Your task to perform on an android device: Open Reddit.com Image 0: 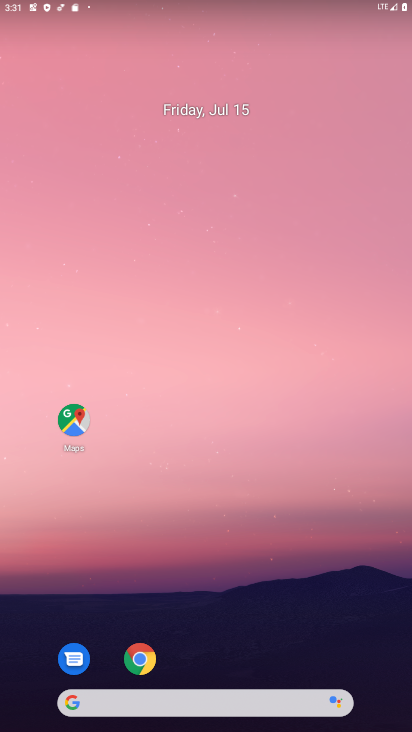
Step 0: drag from (155, 688) to (187, 424)
Your task to perform on an android device: Open Reddit.com Image 1: 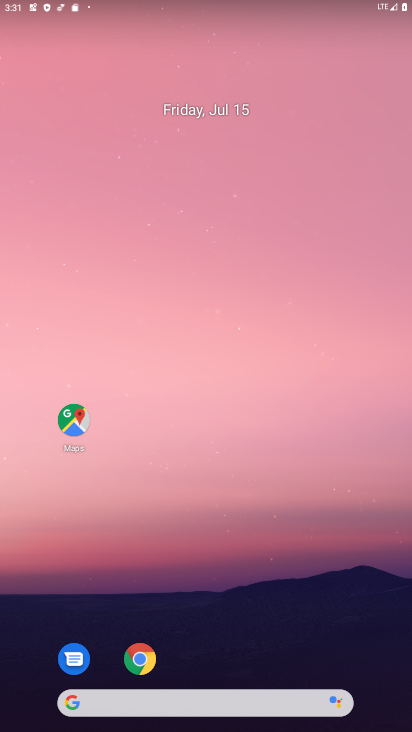
Step 1: drag from (148, 683) to (201, 329)
Your task to perform on an android device: Open Reddit.com Image 2: 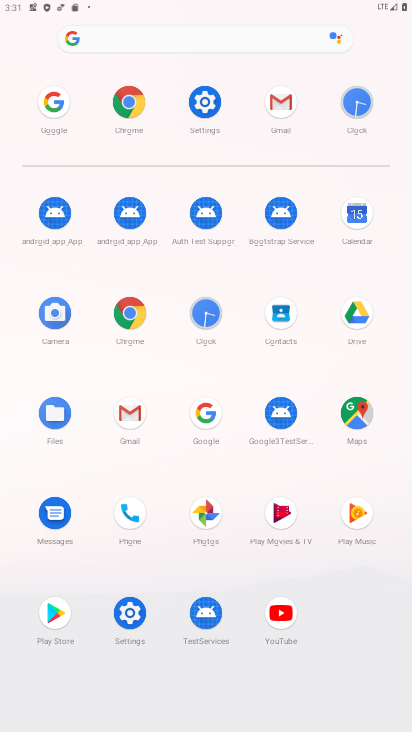
Step 2: click (208, 398)
Your task to perform on an android device: Open Reddit.com Image 3: 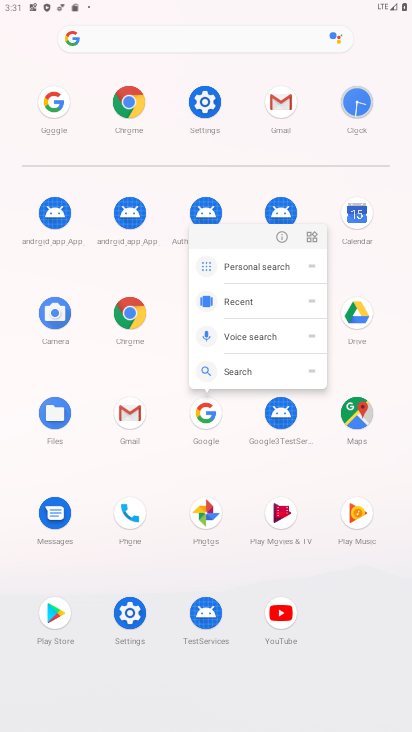
Step 3: click (205, 414)
Your task to perform on an android device: Open Reddit.com Image 4: 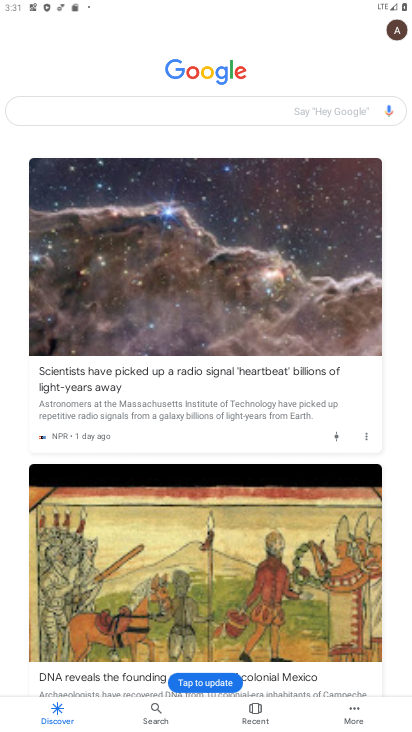
Step 4: click (185, 105)
Your task to perform on an android device: Open Reddit.com Image 5: 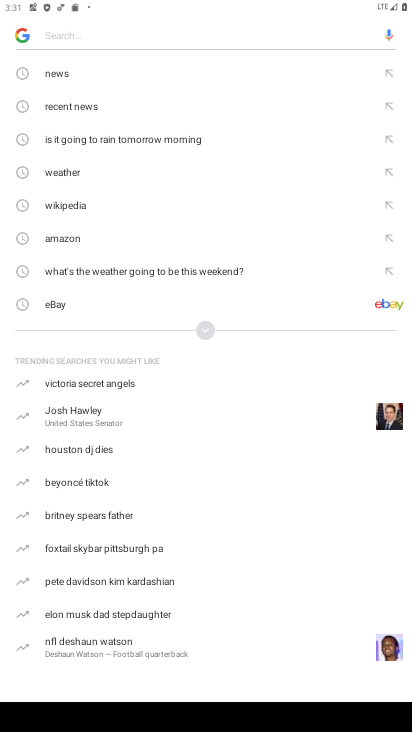
Step 5: click (214, 331)
Your task to perform on an android device: Open Reddit.com Image 6: 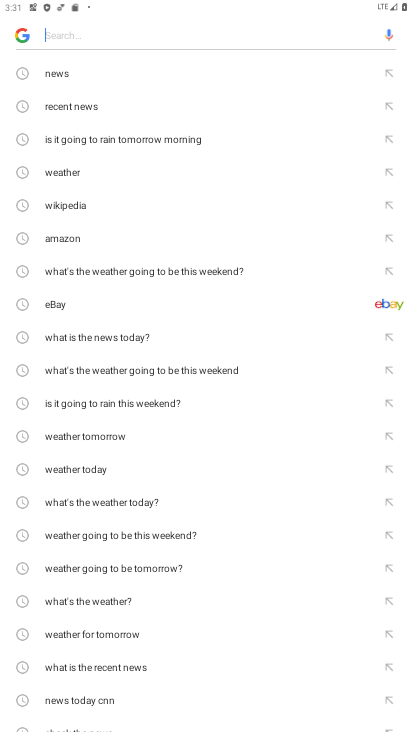
Step 6: drag from (74, 714) to (73, 458)
Your task to perform on an android device: Open Reddit.com Image 7: 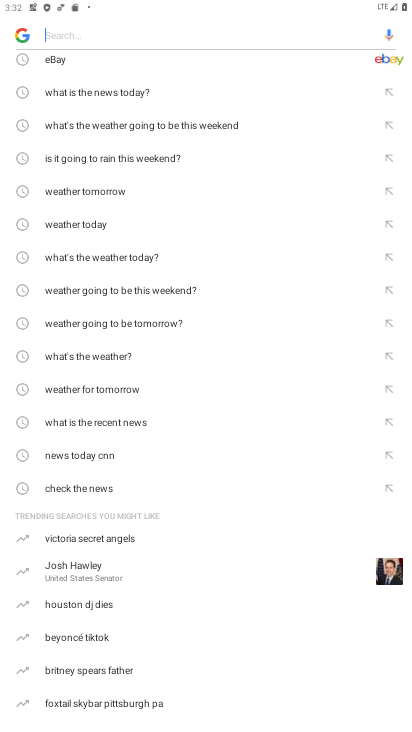
Step 7: drag from (128, 70) to (135, 441)
Your task to perform on an android device: Open Reddit.com Image 8: 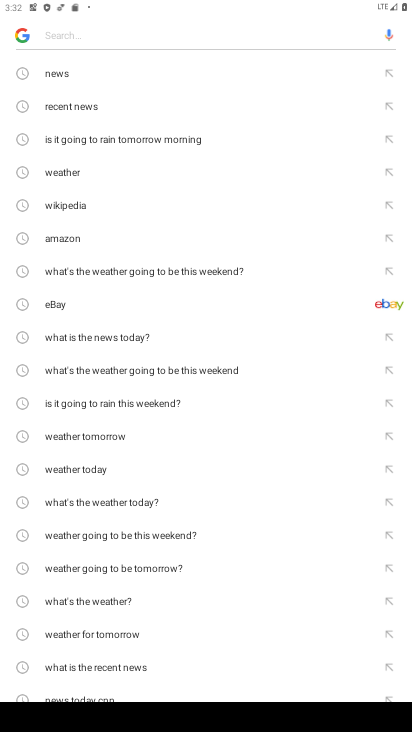
Step 8: drag from (72, 664) to (109, 389)
Your task to perform on an android device: Open Reddit.com Image 9: 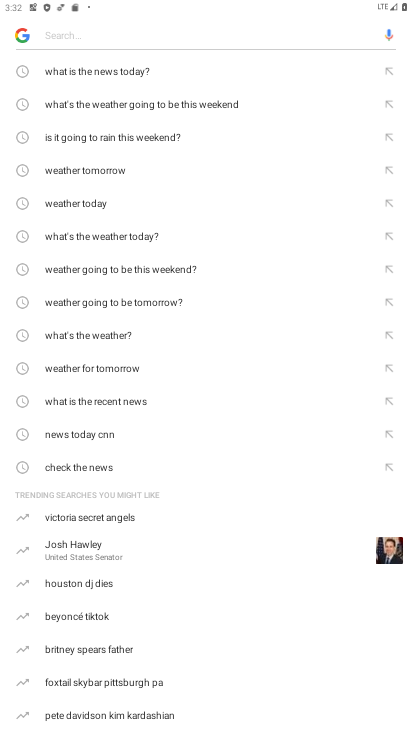
Step 9: type "Reddit.com"
Your task to perform on an android device: Open Reddit.com Image 10: 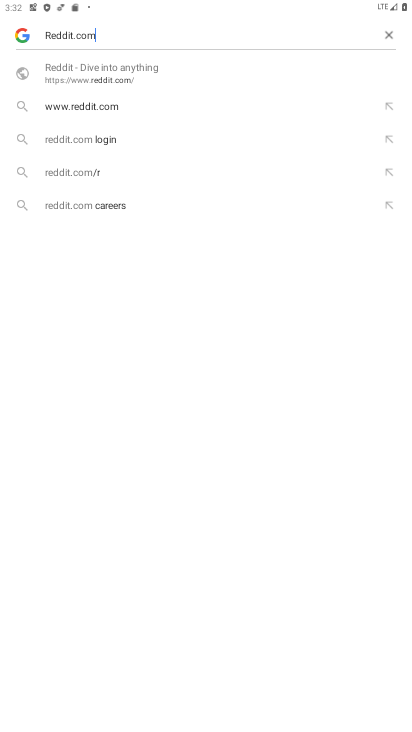
Step 10: click (53, 78)
Your task to perform on an android device: Open Reddit.com Image 11: 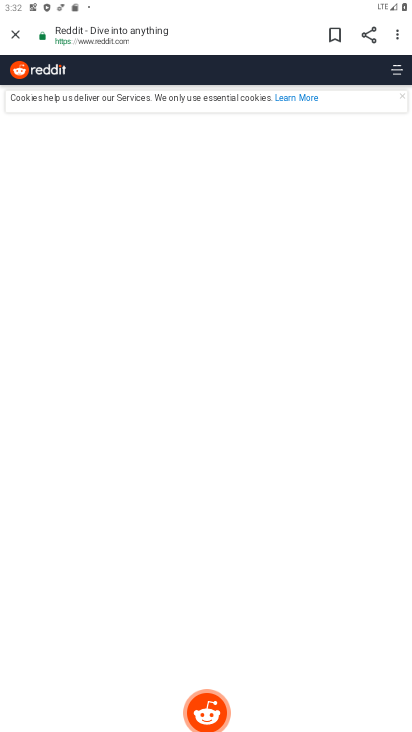
Step 11: task complete